Your task to perform on an android device: Set the phone to "Do not disturb". Image 0: 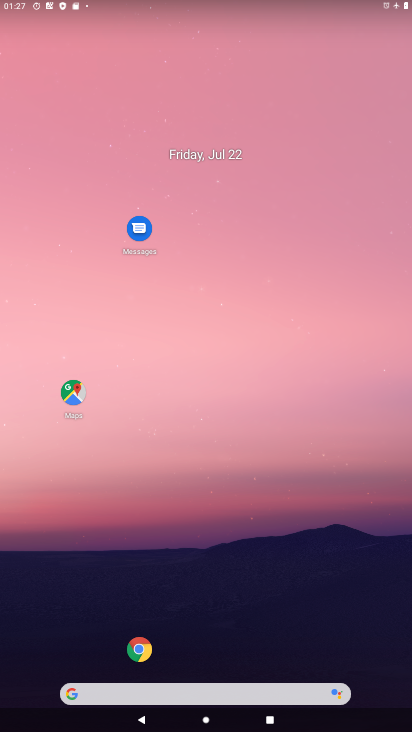
Step 0: drag from (21, 679) to (4, 0)
Your task to perform on an android device: Set the phone to "Do not disturb". Image 1: 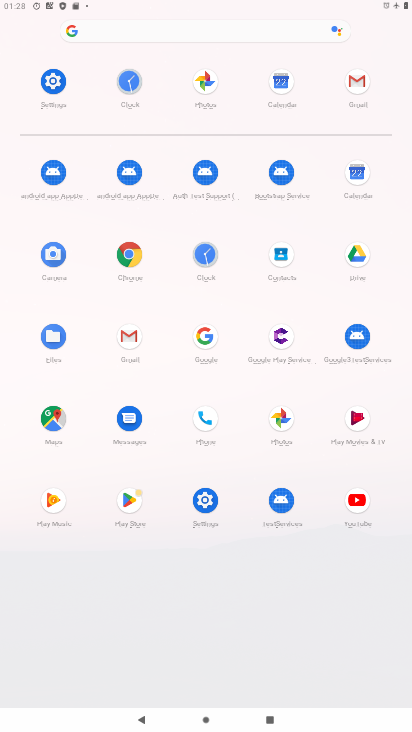
Step 1: click (200, 515)
Your task to perform on an android device: Set the phone to "Do not disturb". Image 2: 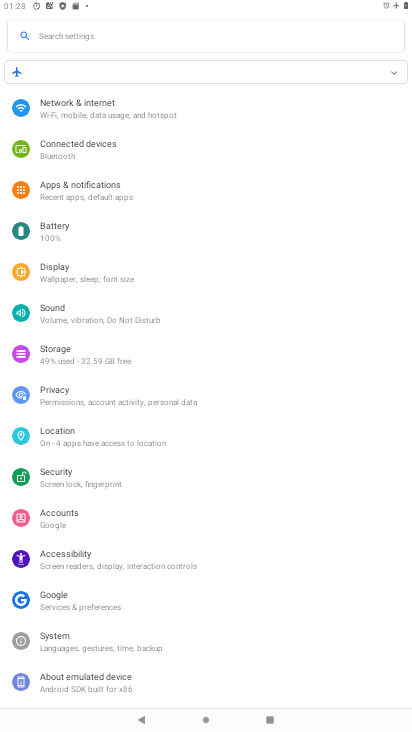
Step 2: click (82, 318)
Your task to perform on an android device: Set the phone to "Do not disturb". Image 3: 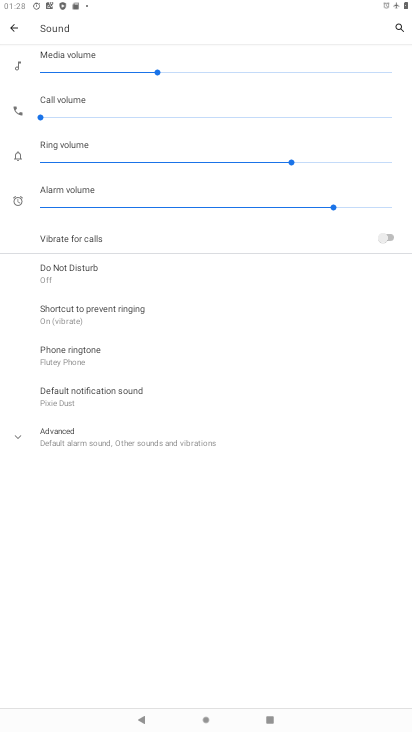
Step 3: click (92, 279)
Your task to perform on an android device: Set the phone to "Do not disturb". Image 4: 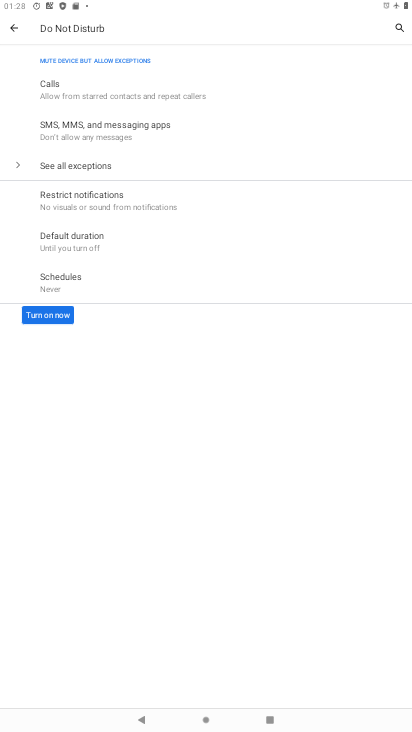
Step 4: click (37, 317)
Your task to perform on an android device: Set the phone to "Do not disturb". Image 5: 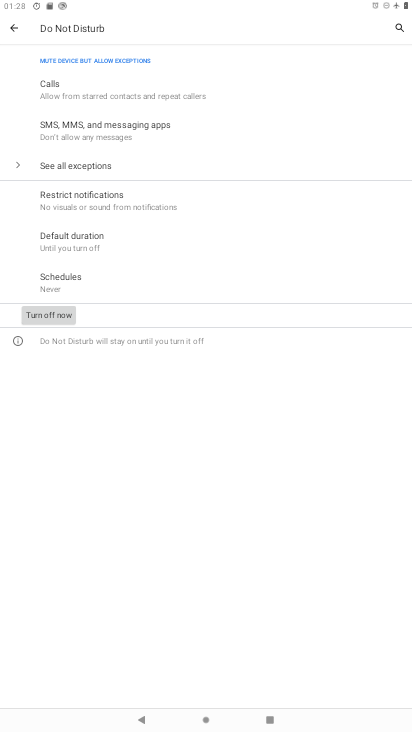
Step 5: task complete